Your task to perform on an android device: turn on showing notifications on the lock screen Image 0: 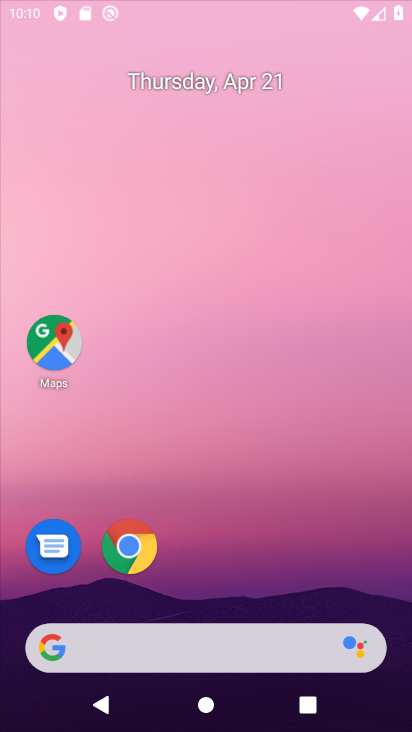
Step 0: click (220, 209)
Your task to perform on an android device: turn on showing notifications on the lock screen Image 1: 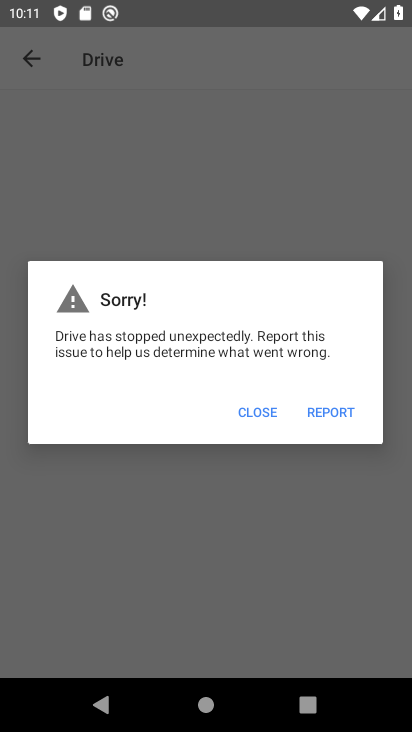
Step 1: press home button
Your task to perform on an android device: turn on showing notifications on the lock screen Image 2: 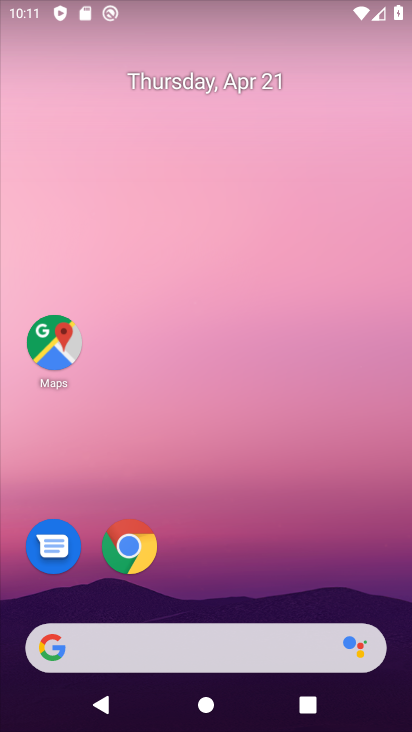
Step 2: drag from (226, 681) to (193, 62)
Your task to perform on an android device: turn on showing notifications on the lock screen Image 3: 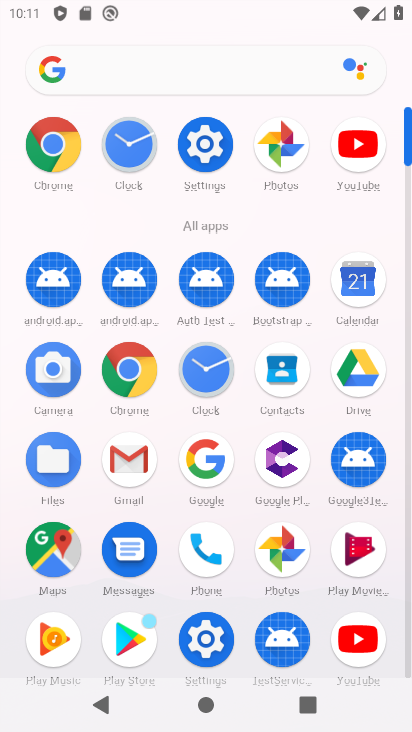
Step 3: click (207, 169)
Your task to perform on an android device: turn on showing notifications on the lock screen Image 4: 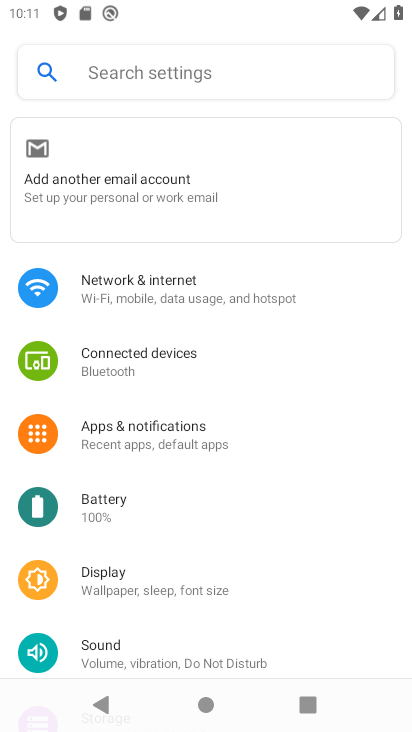
Step 4: click (201, 78)
Your task to perform on an android device: turn on showing notifications on the lock screen Image 5: 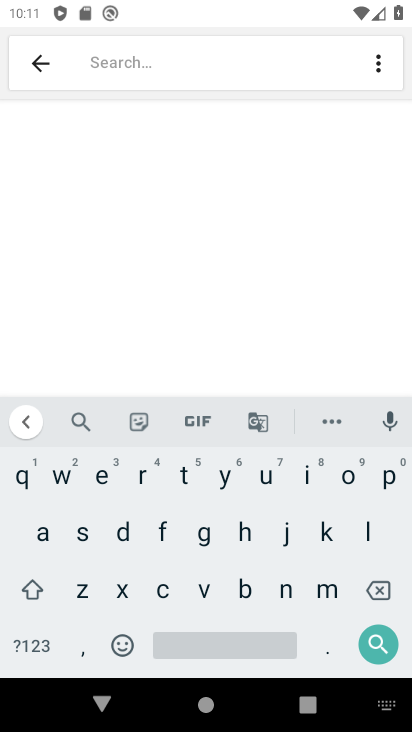
Step 5: click (288, 591)
Your task to perform on an android device: turn on showing notifications on the lock screen Image 6: 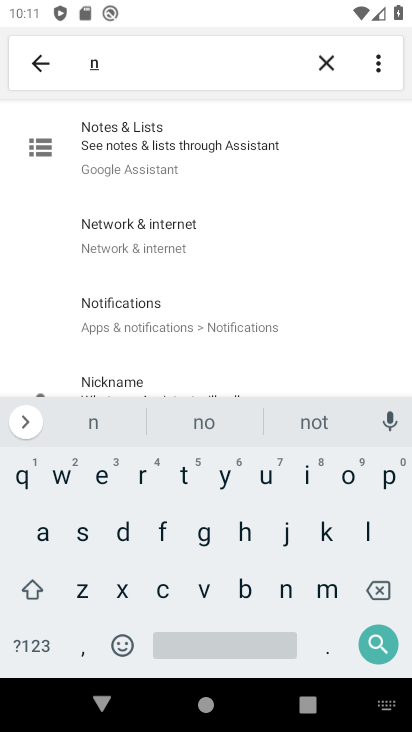
Step 6: click (222, 313)
Your task to perform on an android device: turn on showing notifications on the lock screen Image 7: 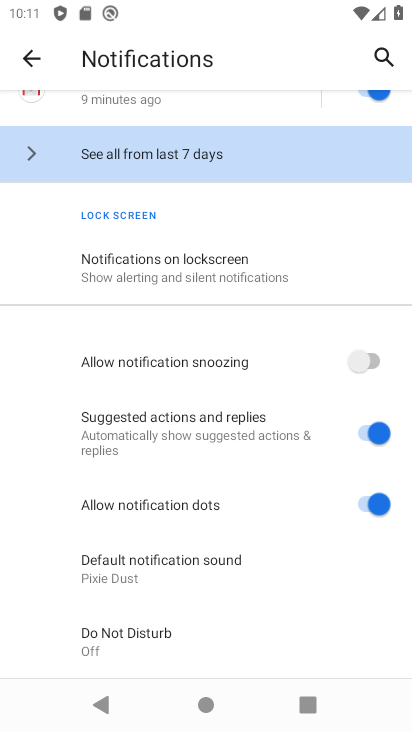
Step 7: click (187, 266)
Your task to perform on an android device: turn on showing notifications on the lock screen Image 8: 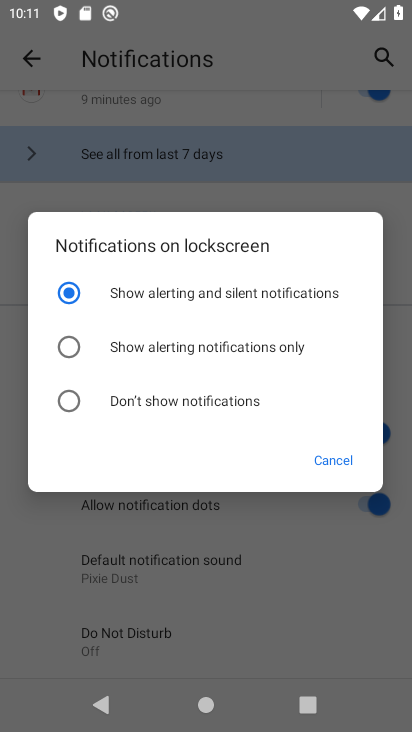
Step 8: task complete